Your task to perform on an android device: choose inbox layout in the gmail app Image 0: 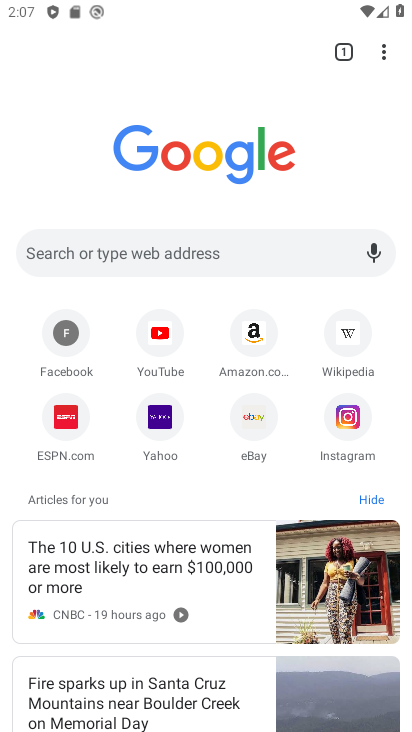
Step 0: click (389, 51)
Your task to perform on an android device: choose inbox layout in the gmail app Image 1: 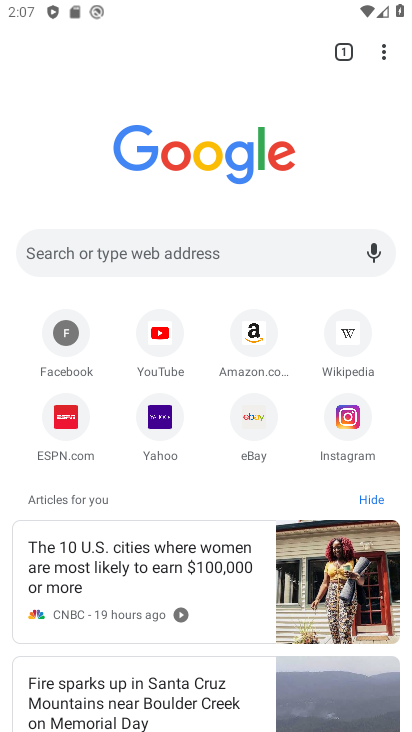
Step 1: click (381, 52)
Your task to perform on an android device: choose inbox layout in the gmail app Image 2: 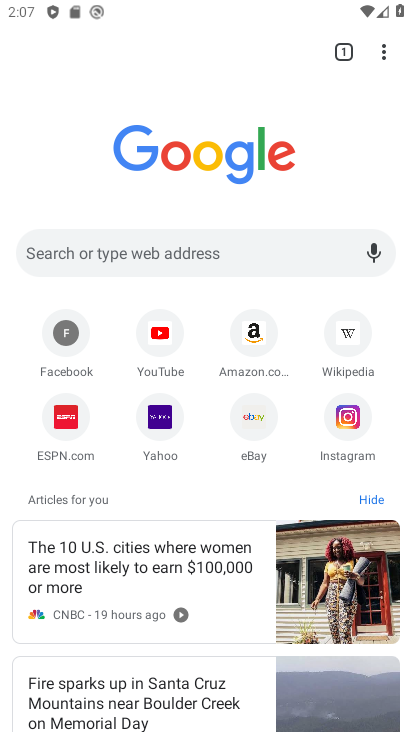
Step 2: press back button
Your task to perform on an android device: choose inbox layout in the gmail app Image 3: 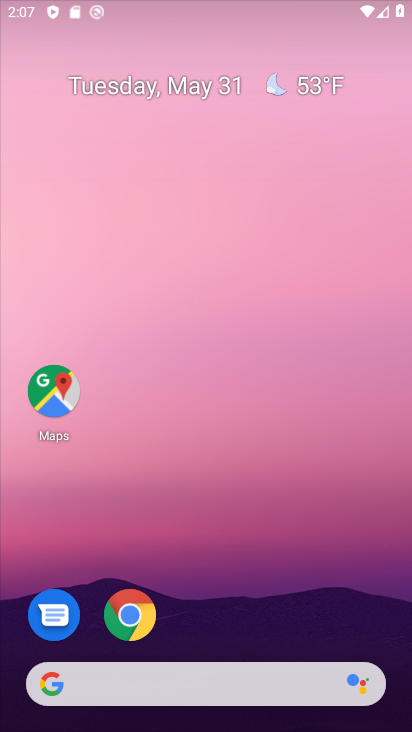
Step 3: drag from (229, 558) to (286, 78)
Your task to perform on an android device: choose inbox layout in the gmail app Image 4: 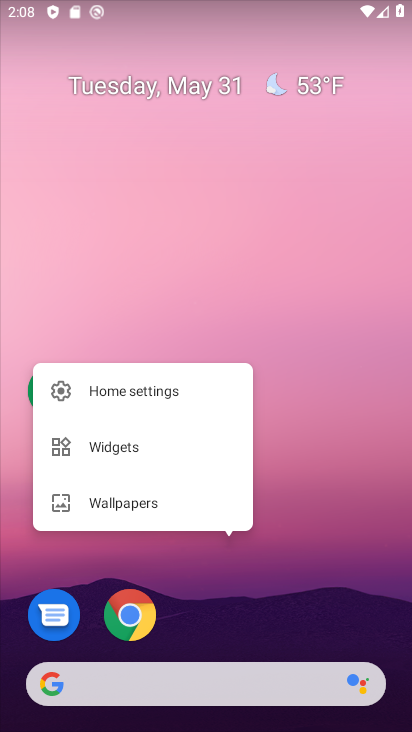
Step 4: click (333, 481)
Your task to perform on an android device: choose inbox layout in the gmail app Image 5: 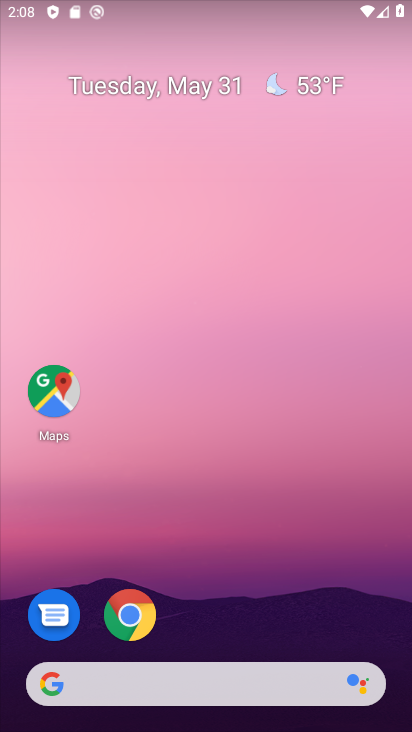
Step 5: drag from (294, 536) to (333, 43)
Your task to perform on an android device: choose inbox layout in the gmail app Image 6: 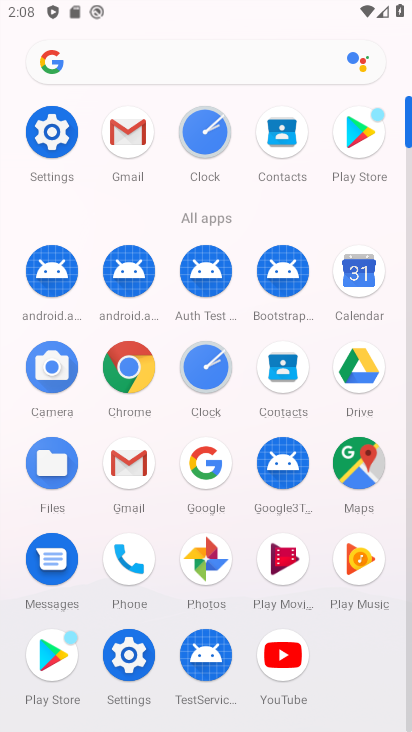
Step 6: click (128, 128)
Your task to perform on an android device: choose inbox layout in the gmail app Image 7: 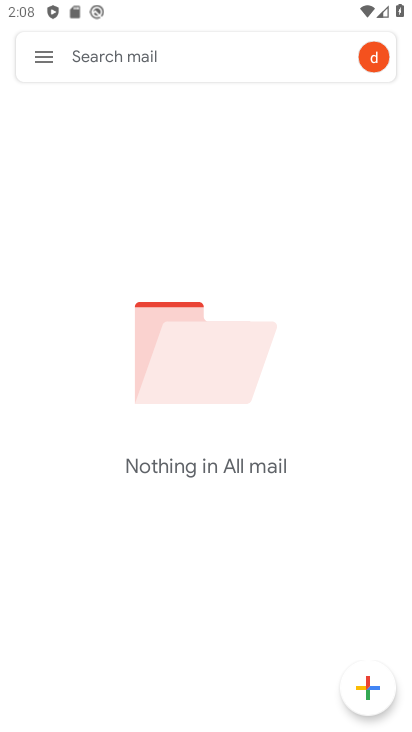
Step 7: click (40, 54)
Your task to perform on an android device: choose inbox layout in the gmail app Image 8: 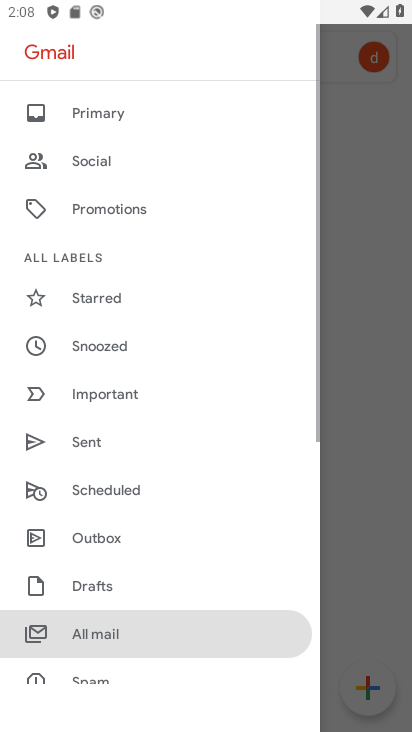
Step 8: drag from (144, 582) to (224, 52)
Your task to perform on an android device: choose inbox layout in the gmail app Image 9: 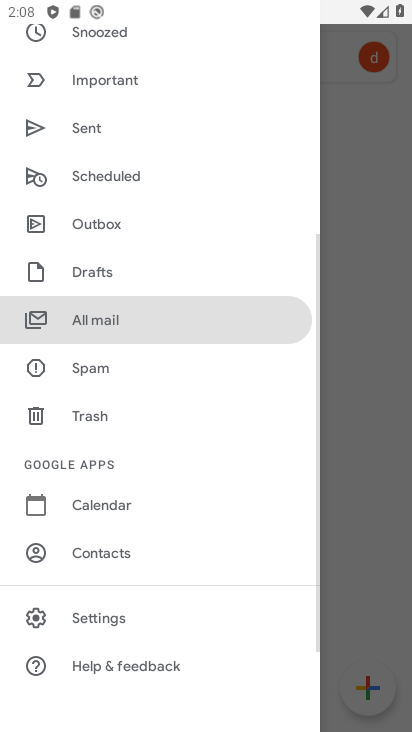
Step 9: click (77, 604)
Your task to perform on an android device: choose inbox layout in the gmail app Image 10: 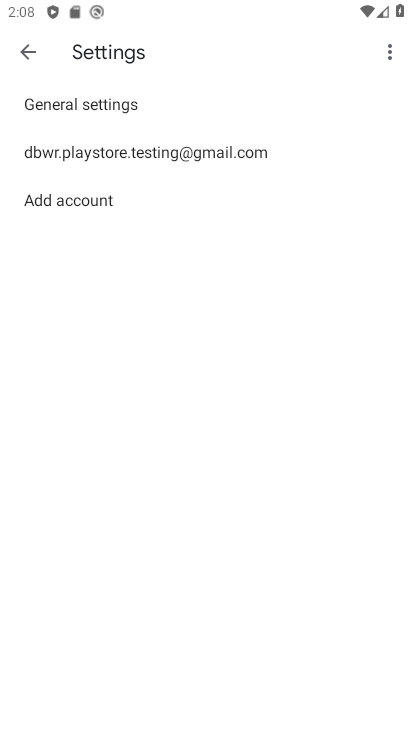
Step 10: click (105, 143)
Your task to perform on an android device: choose inbox layout in the gmail app Image 11: 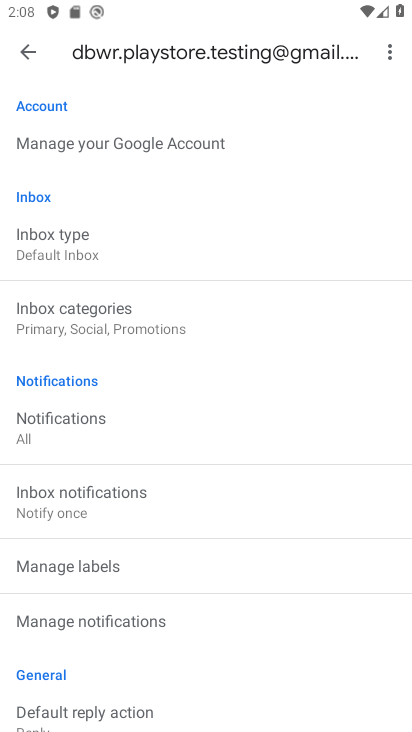
Step 11: click (69, 232)
Your task to perform on an android device: choose inbox layout in the gmail app Image 12: 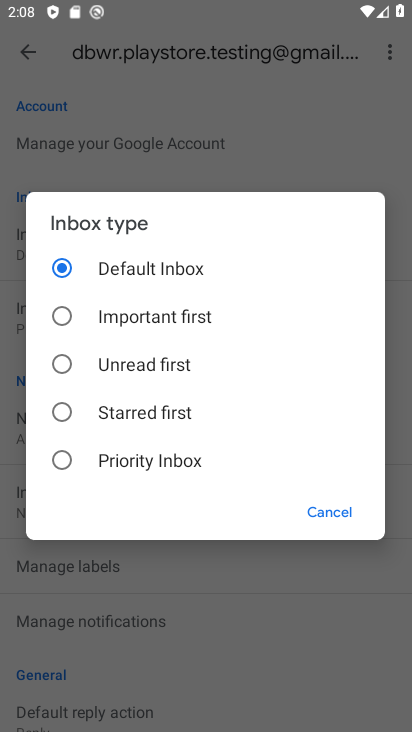
Step 12: click (66, 453)
Your task to perform on an android device: choose inbox layout in the gmail app Image 13: 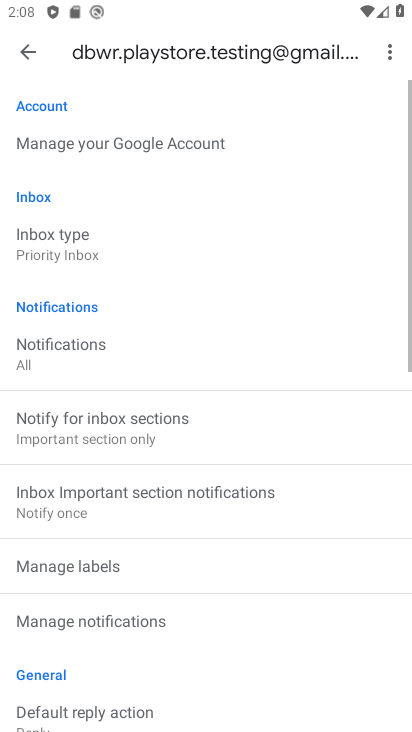
Step 13: task complete